Your task to perform on an android device: Open Youtube and go to the subscriptions tab Image 0: 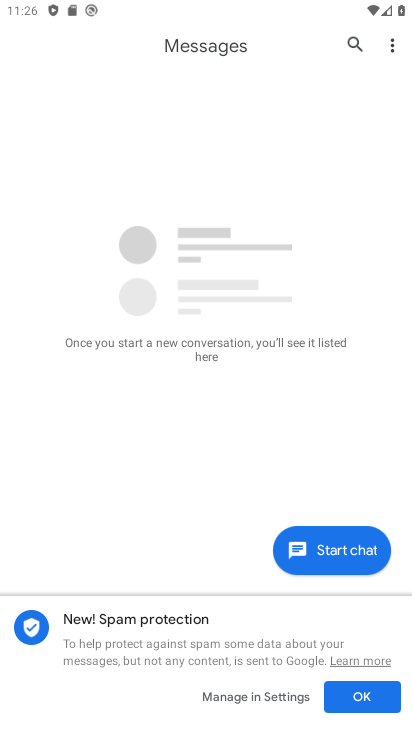
Step 0: press home button
Your task to perform on an android device: Open Youtube and go to the subscriptions tab Image 1: 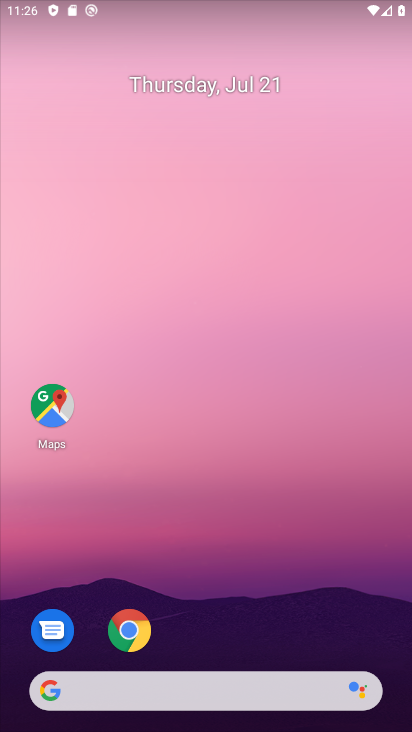
Step 1: drag from (266, 596) to (242, 59)
Your task to perform on an android device: Open Youtube and go to the subscriptions tab Image 2: 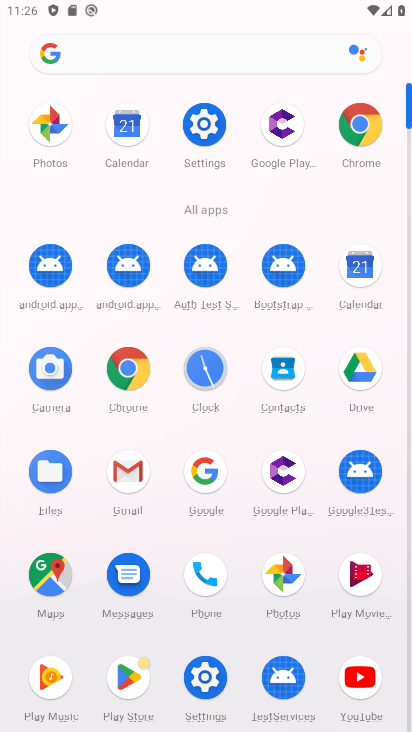
Step 2: click (361, 677)
Your task to perform on an android device: Open Youtube and go to the subscriptions tab Image 3: 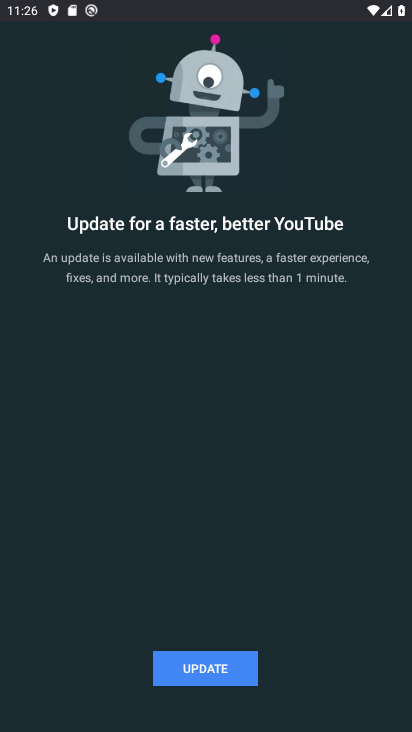
Step 3: click (228, 669)
Your task to perform on an android device: Open Youtube and go to the subscriptions tab Image 4: 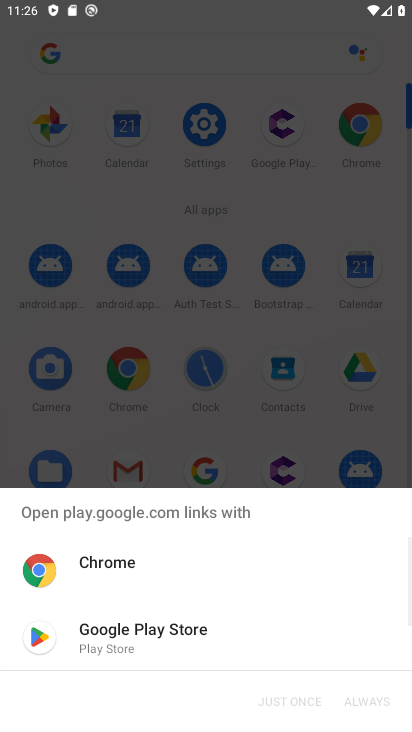
Step 4: click (158, 630)
Your task to perform on an android device: Open Youtube and go to the subscriptions tab Image 5: 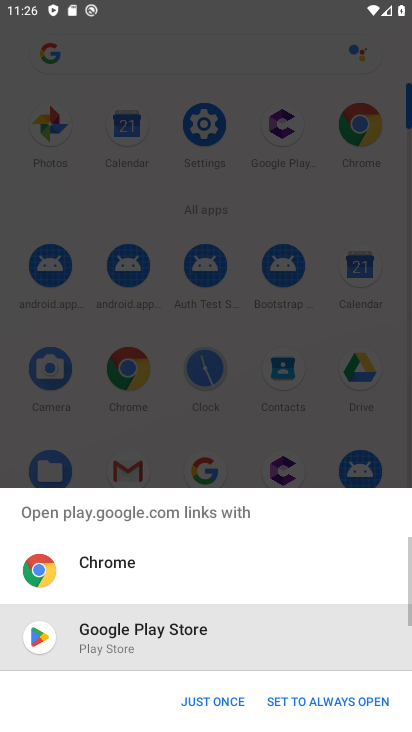
Step 5: click (222, 701)
Your task to perform on an android device: Open Youtube and go to the subscriptions tab Image 6: 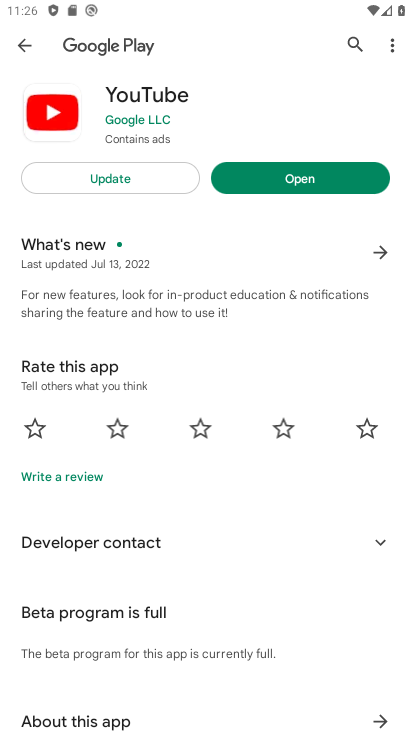
Step 6: click (130, 180)
Your task to perform on an android device: Open Youtube and go to the subscriptions tab Image 7: 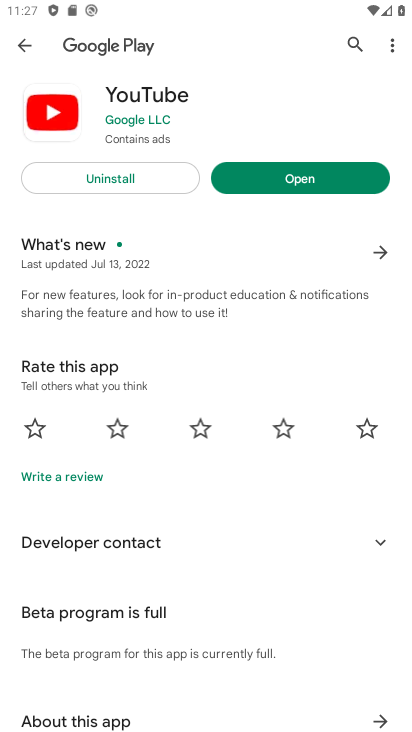
Step 7: click (303, 175)
Your task to perform on an android device: Open Youtube and go to the subscriptions tab Image 8: 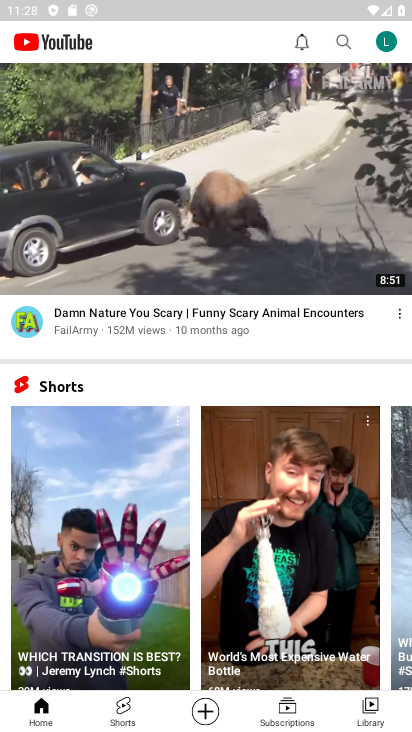
Step 8: click (283, 712)
Your task to perform on an android device: Open Youtube and go to the subscriptions tab Image 9: 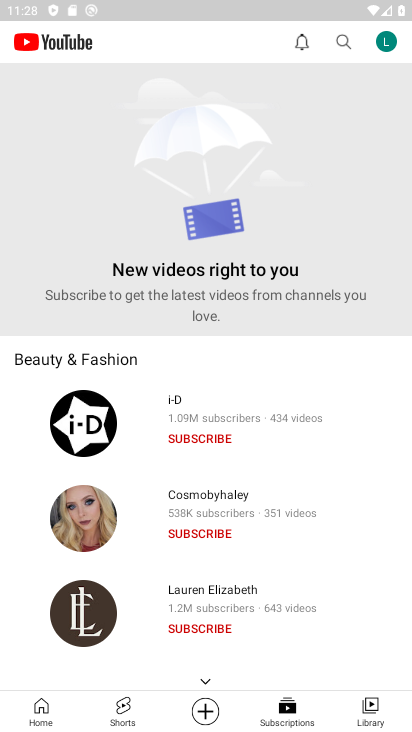
Step 9: task complete